Your task to perform on an android device: Open calendar and show me the first week of next month Image 0: 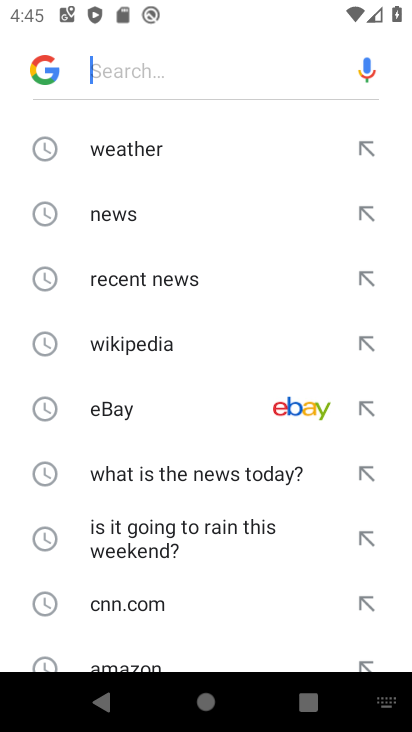
Step 0: press home button
Your task to perform on an android device: Open calendar and show me the first week of next month Image 1: 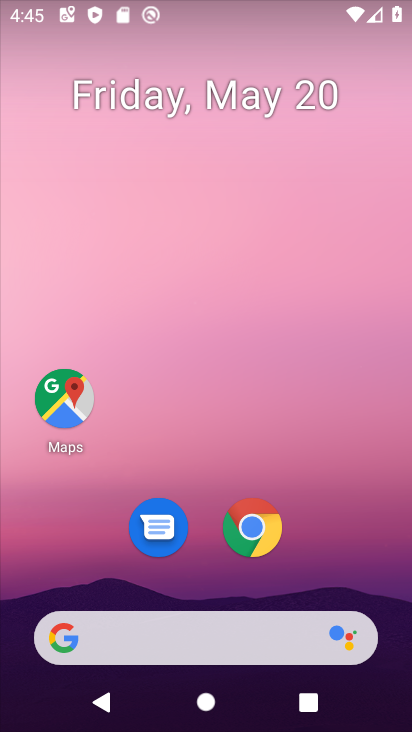
Step 1: drag from (191, 471) to (205, 157)
Your task to perform on an android device: Open calendar and show me the first week of next month Image 2: 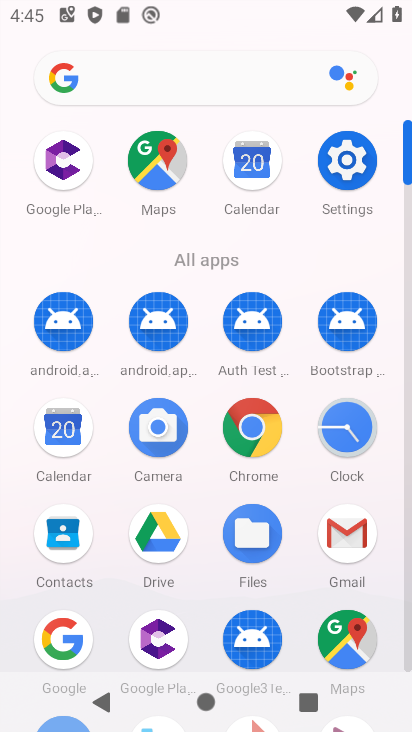
Step 2: click (63, 437)
Your task to perform on an android device: Open calendar and show me the first week of next month Image 3: 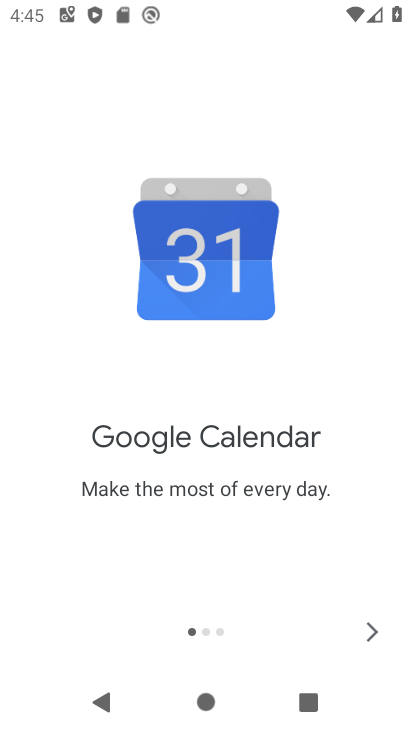
Step 3: click (368, 634)
Your task to perform on an android device: Open calendar and show me the first week of next month Image 4: 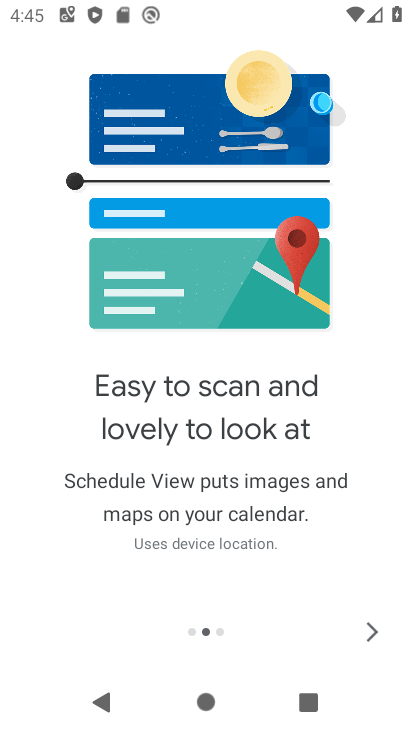
Step 4: click (368, 634)
Your task to perform on an android device: Open calendar and show me the first week of next month Image 5: 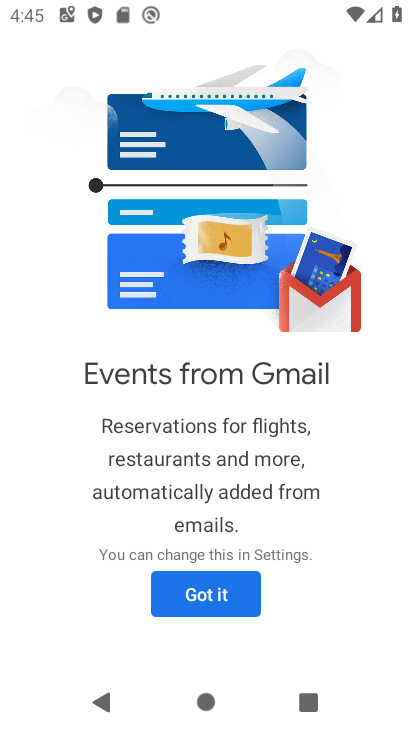
Step 5: click (187, 608)
Your task to perform on an android device: Open calendar and show me the first week of next month Image 6: 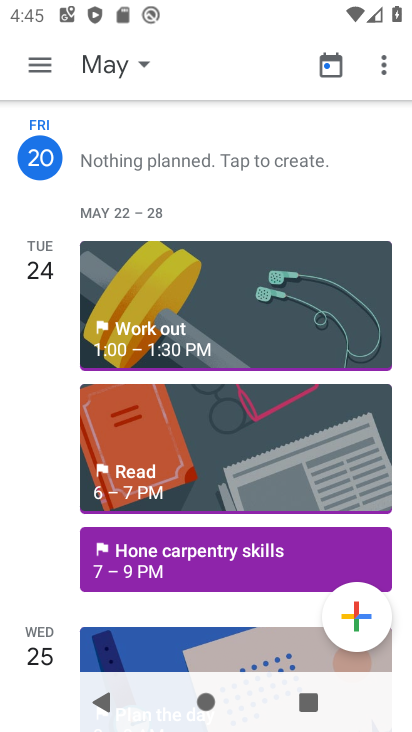
Step 6: click (122, 66)
Your task to perform on an android device: Open calendar and show me the first week of next month Image 7: 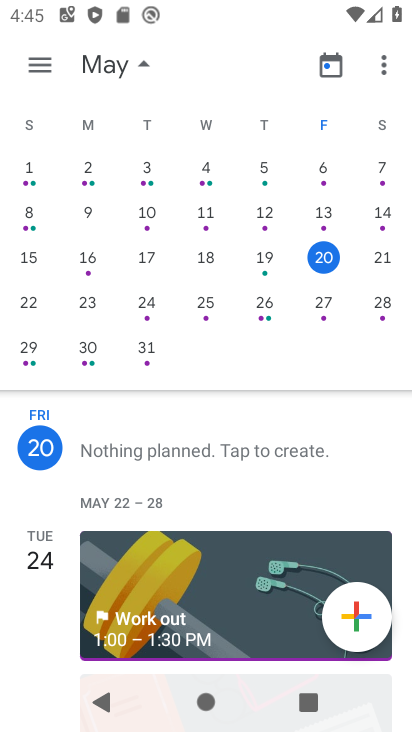
Step 7: drag from (321, 321) to (14, 253)
Your task to perform on an android device: Open calendar and show me the first week of next month Image 8: 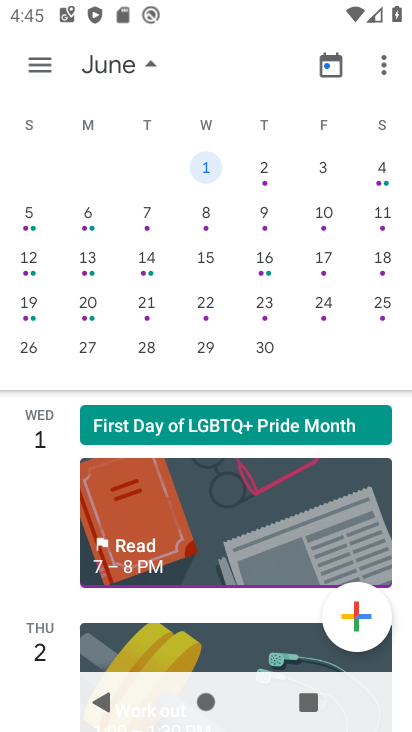
Step 8: click (202, 163)
Your task to perform on an android device: Open calendar and show me the first week of next month Image 9: 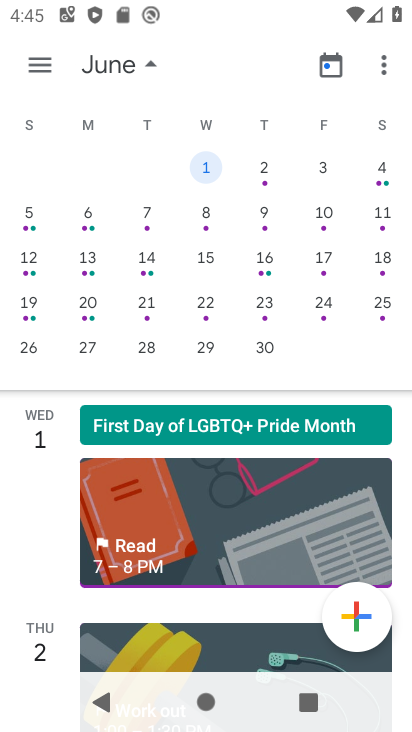
Step 9: task complete